Your task to perform on an android device: Open Google Chrome Image 0: 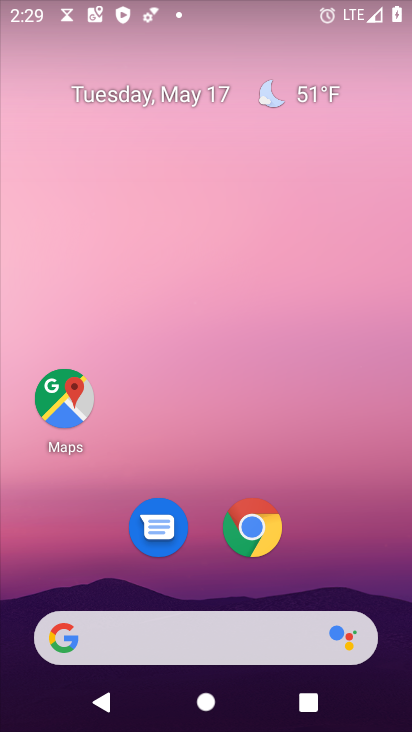
Step 0: click (250, 527)
Your task to perform on an android device: Open Google Chrome Image 1: 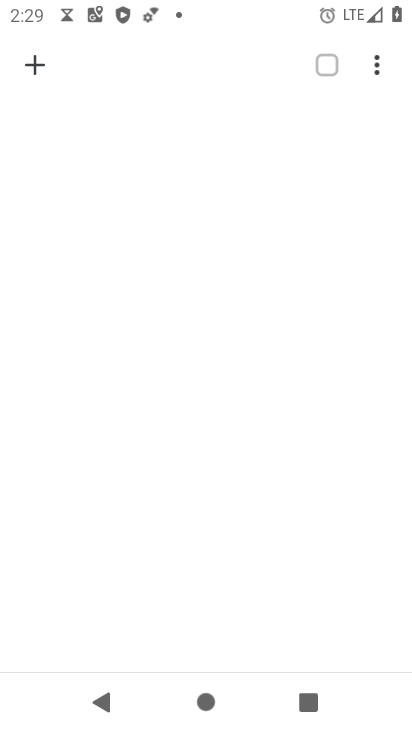
Step 1: click (31, 62)
Your task to perform on an android device: Open Google Chrome Image 2: 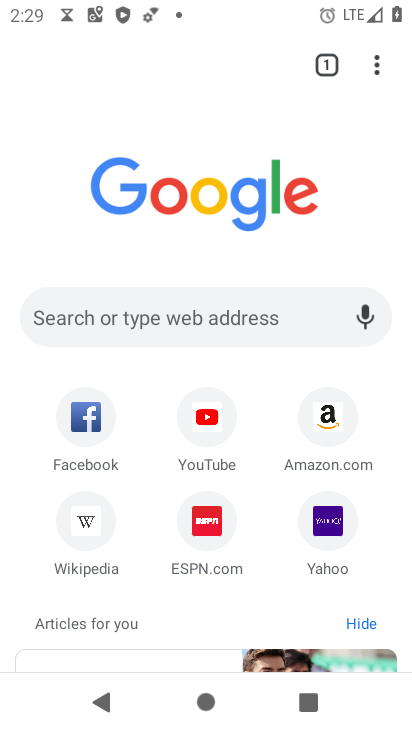
Step 2: task complete